Your task to perform on an android device: check the backup settings in the google photos Image 0: 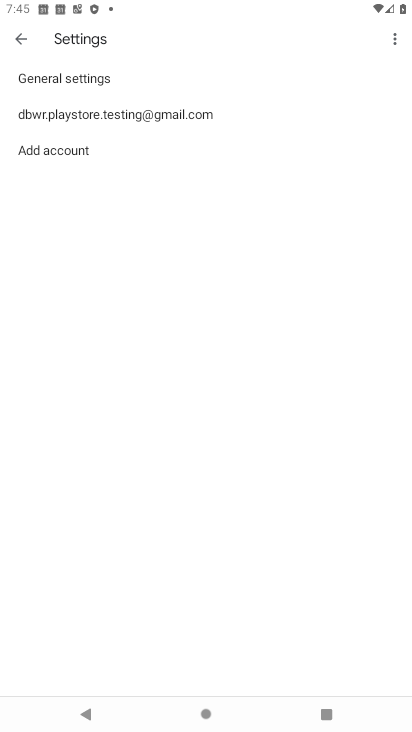
Step 0: press home button
Your task to perform on an android device: check the backup settings in the google photos Image 1: 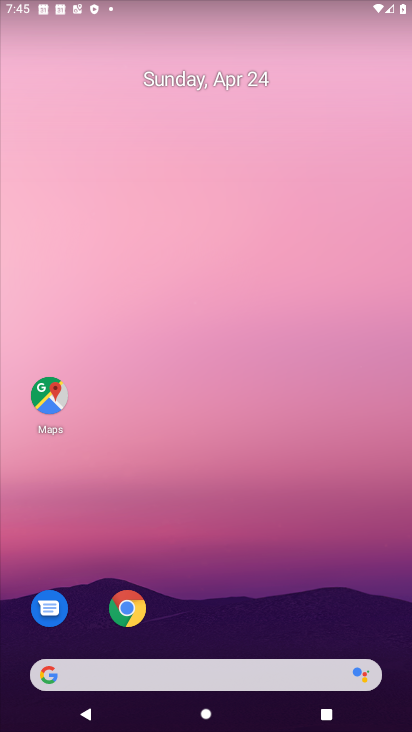
Step 1: drag from (269, 607) to (330, 175)
Your task to perform on an android device: check the backup settings in the google photos Image 2: 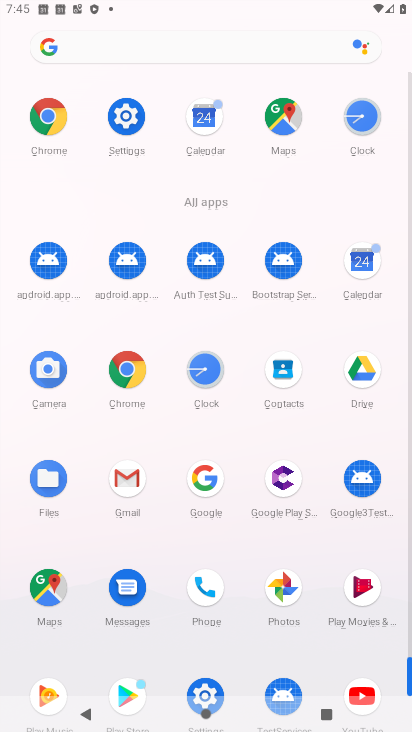
Step 2: click (289, 589)
Your task to perform on an android device: check the backup settings in the google photos Image 3: 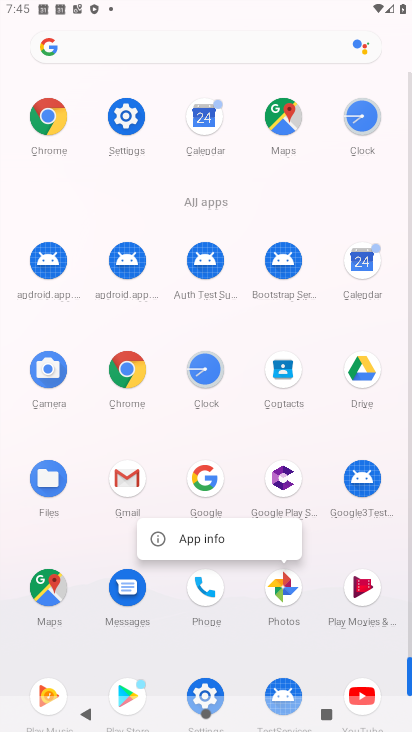
Step 3: click (283, 603)
Your task to perform on an android device: check the backup settings in the google photos Image 4: 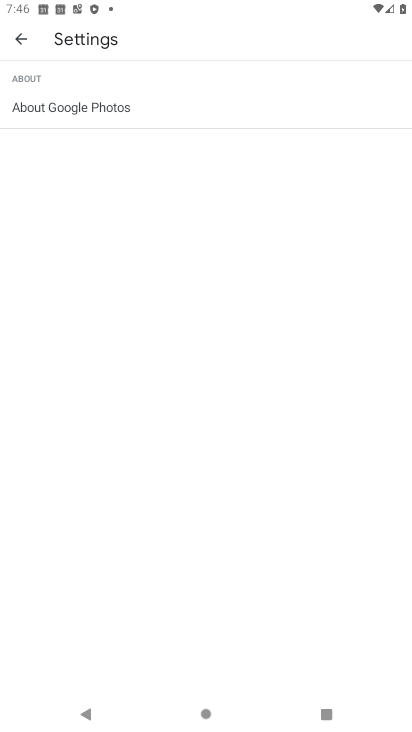
Step 4: click (17, 35)
Your task to perform on an android device: check the backup settings in the google photos Image 5: 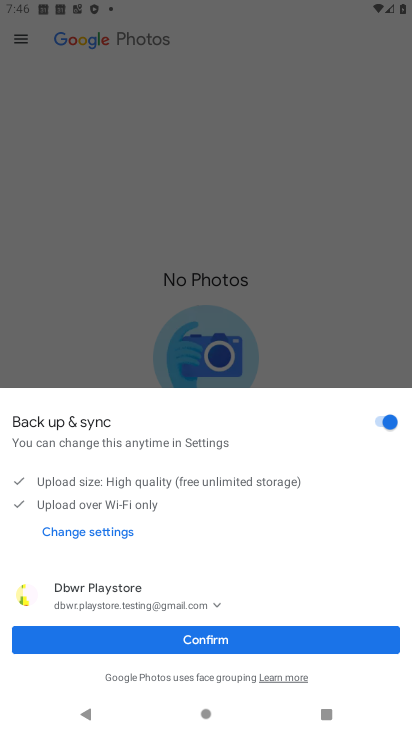
Step 5: click (267, 641)
Your task to perform on an android device: check the backup settings in the google photos Image 6: 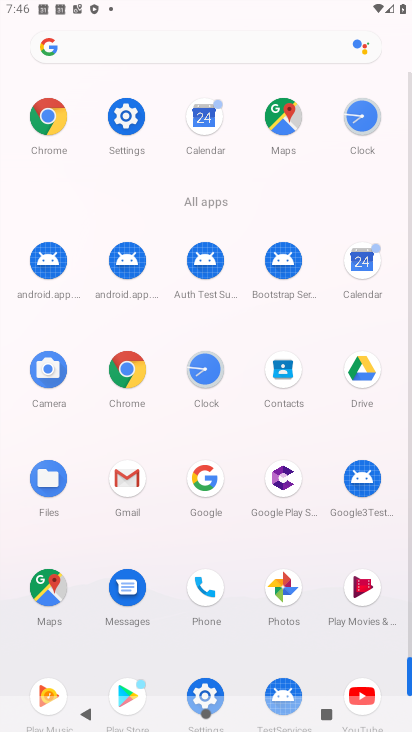
Step 6: click (274, 578)
Your task to perform on an android device: check the backup settings in the google photos Image 7: 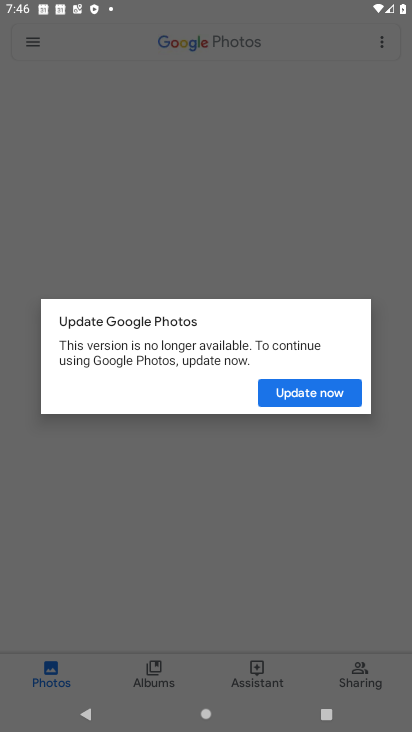
Step 7: click (355, 601)
Your task to perform on an android device: check the backup settings in the google photos Image 8: 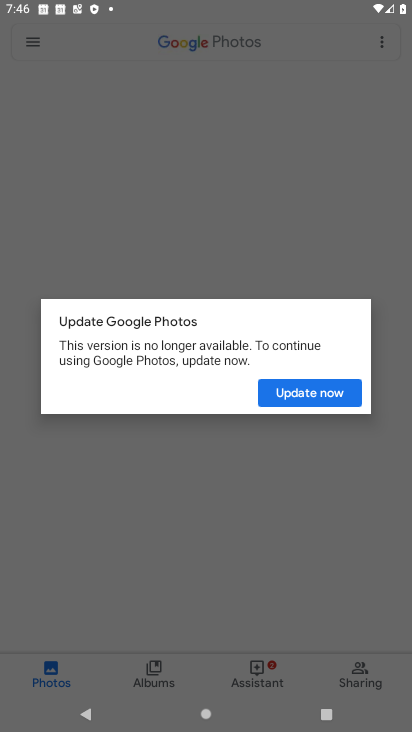
Step 8: click (349, 530)
Your task to perform on an android device: check the backup settings in the google photos Image 9: 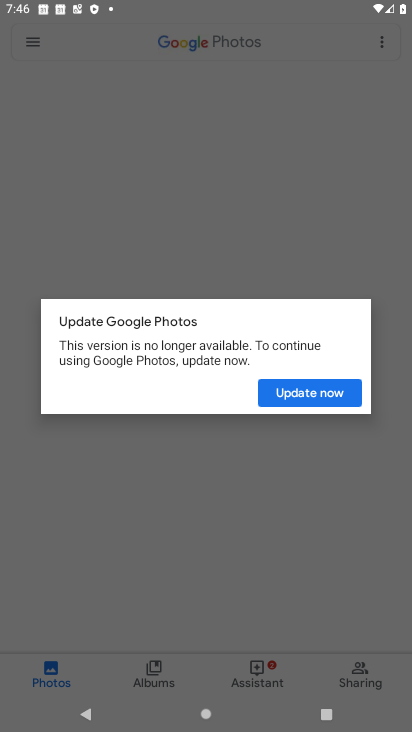
Step 9: click (313, 389)
Your task to perform on an android device: check the backup settings in the google photos Image 10: 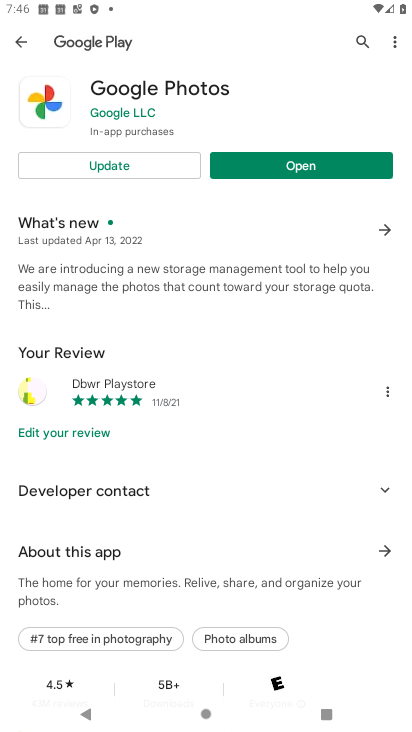
Step 10: click (342, 164)
Your task to perform on an android device: check the backup settings in the google photos Image 11: 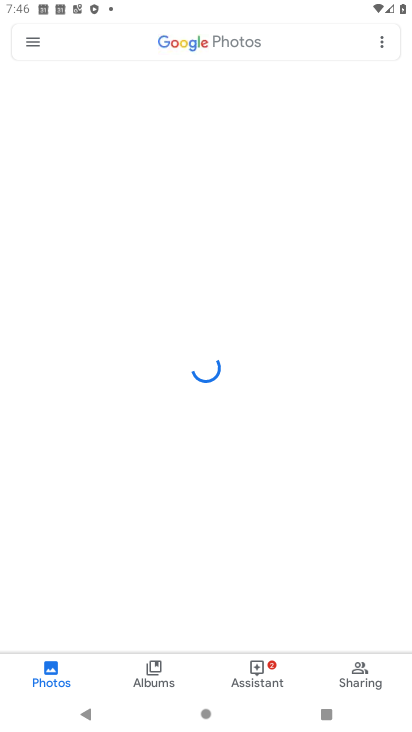
Step 11: click (384, 41)
Your task to perform on an android device: check the backup settings in the google photos Image 12: 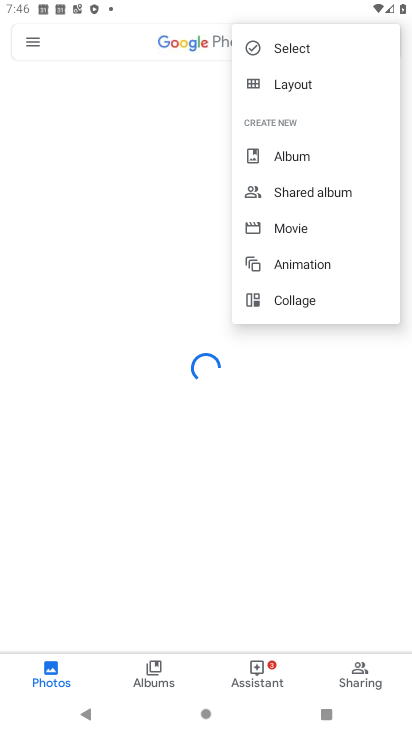
Step 12: click (30, 35)
Your task to perform on an android device: check the backup settings in the google photos Image 13: 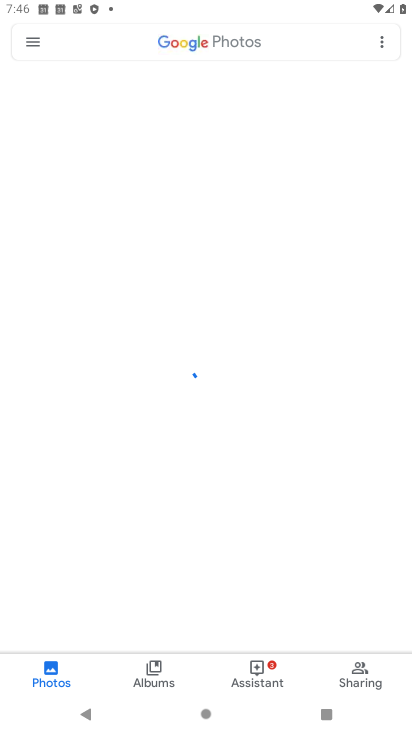
Step 13: click (33, 40)
Your task to perform on an android device: check the backup settings in the google photos Image 14: 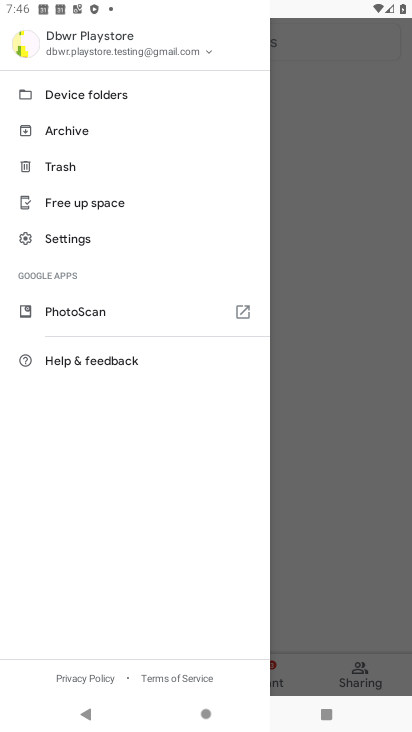
Step 14: click (81, 240)
Your task to perform on an android device: check the backup settings in the google photos Image 15: 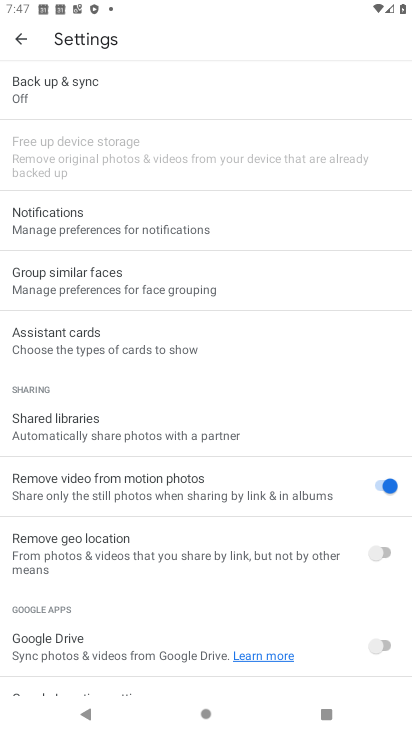
Step 15: click (111, 98)
Your task to perform on an android device: check the backup settings in the google photos Image 16: 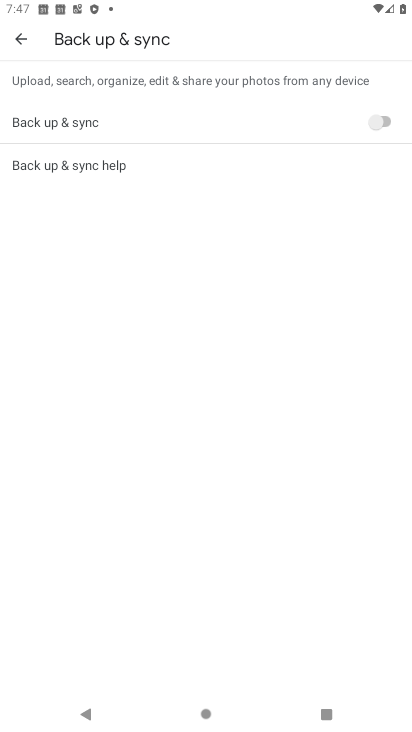
Step 16: task complete